Your task to perform on an android device: Show me the alarms in the clock app Image 0: 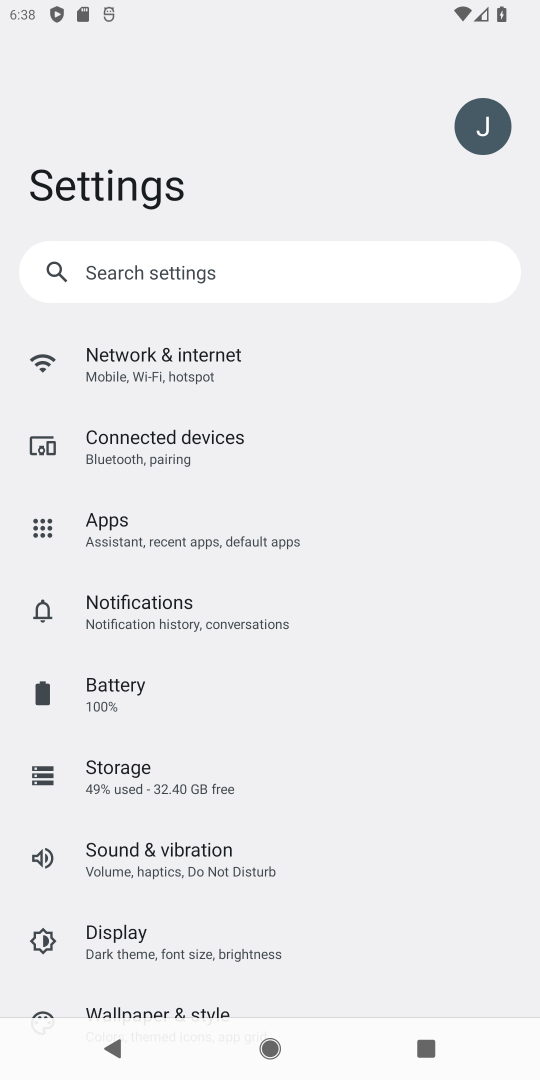
Step 0: press home button
Your task to perform on an android device: Show me the alarms in the clock app Image 1: 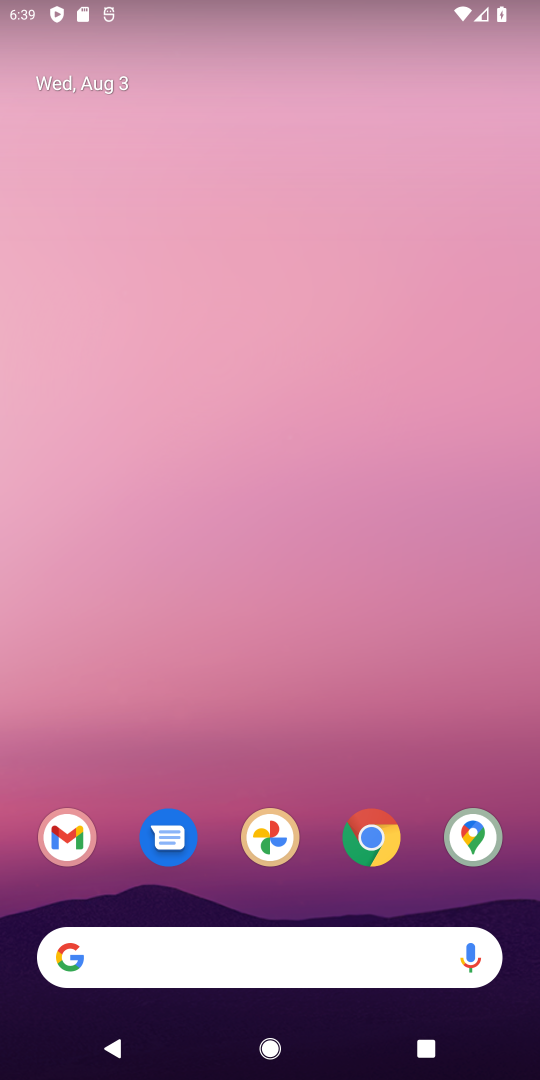
Step 1: drag from (282, 722) to (276, 5)
Your task to perform on an android device: Show me the alarms in the clock app Image 2: 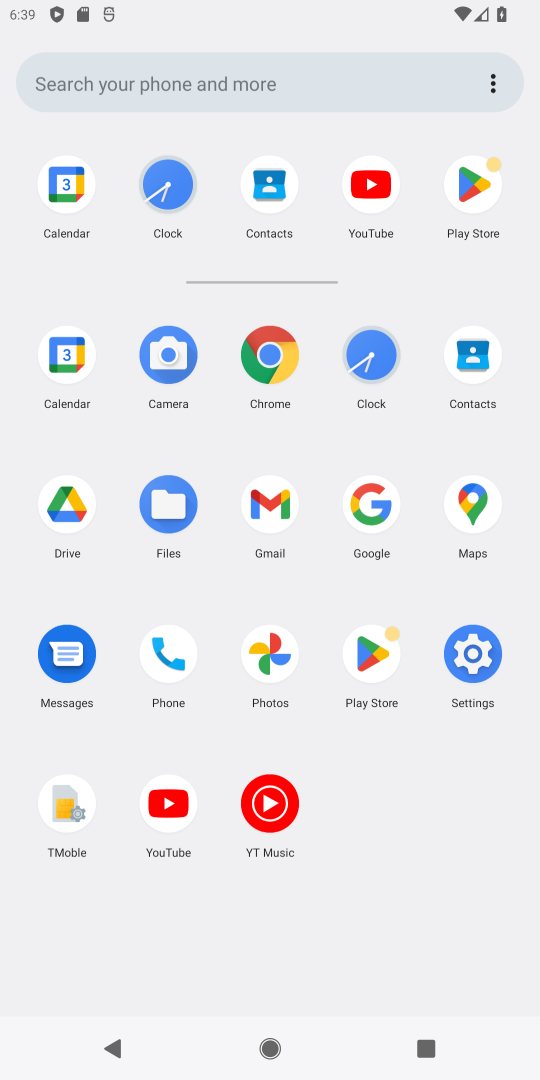
Step 2: click (365, 356)
Your task to perform on an android device: Show me the alarms in the clock app Image 3: 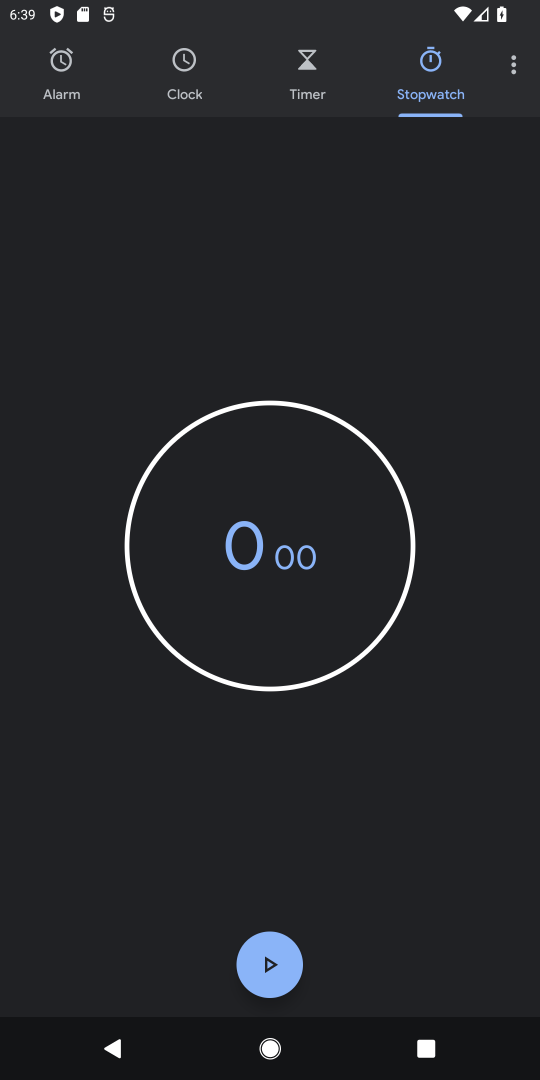
Step 3: click (64, 72)
Your task to perform on an android device: Show me the alarms in the clock app Image 4: 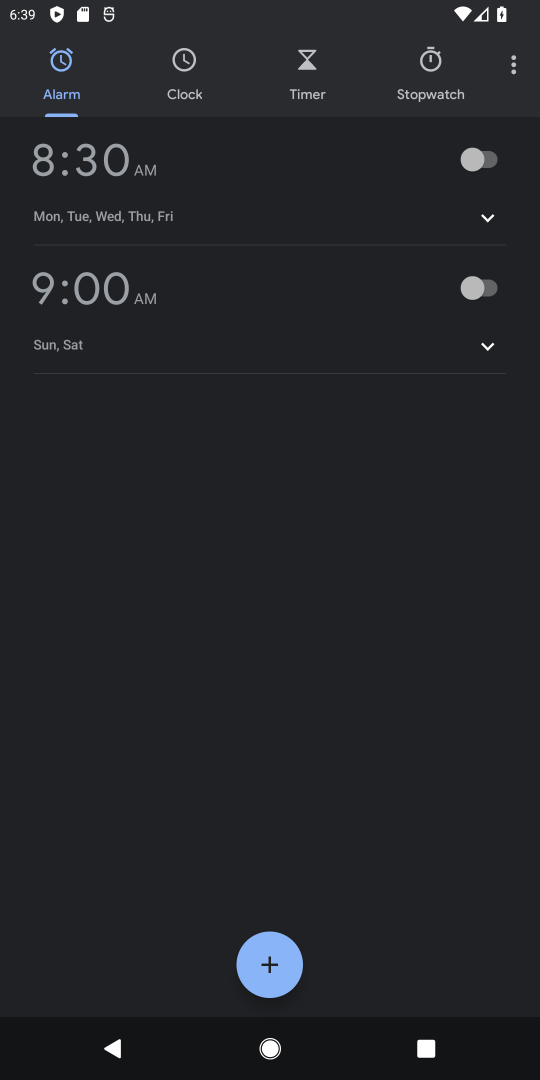
Step 4: task complete